Your task to perform on an android device: Open accessibility settings Image 0: 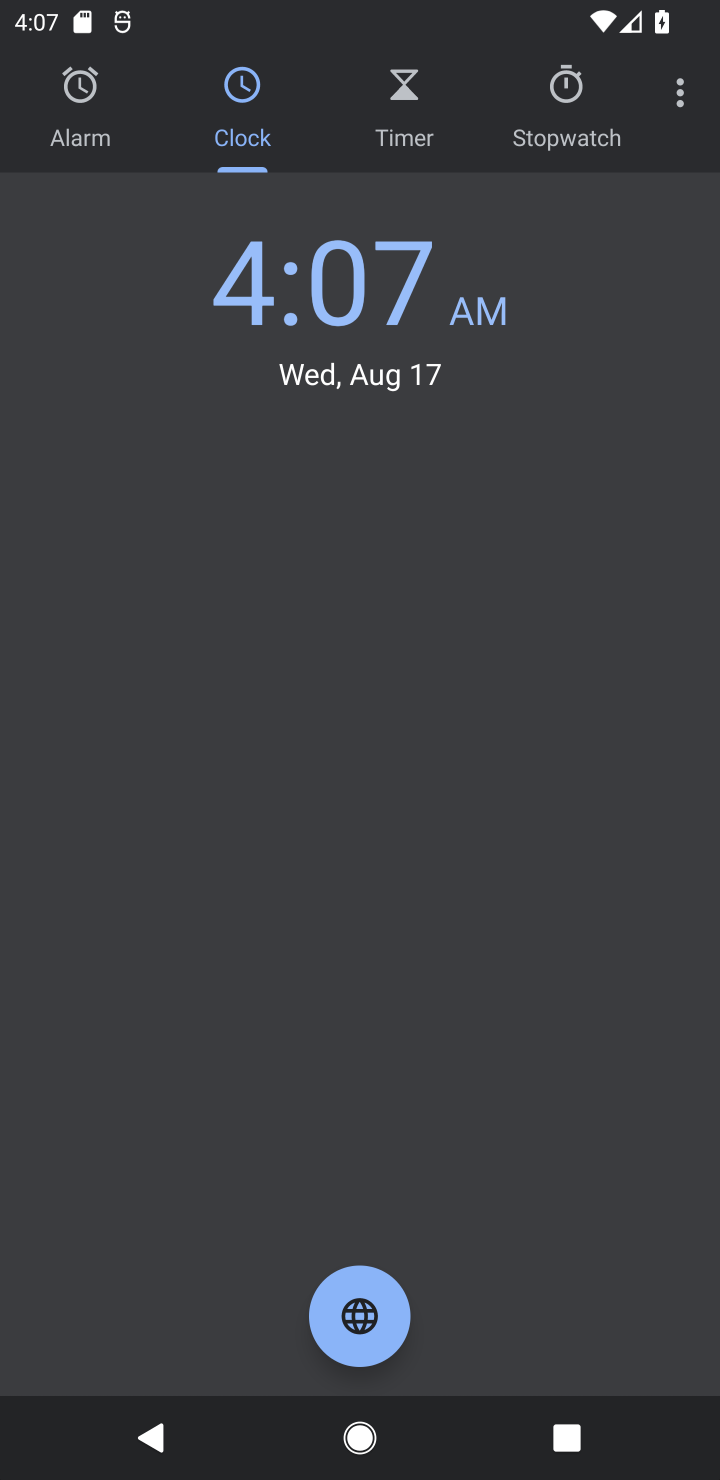
Step 0: press home button
Your task to perform on an android device: Open accessibility settings Image 1: 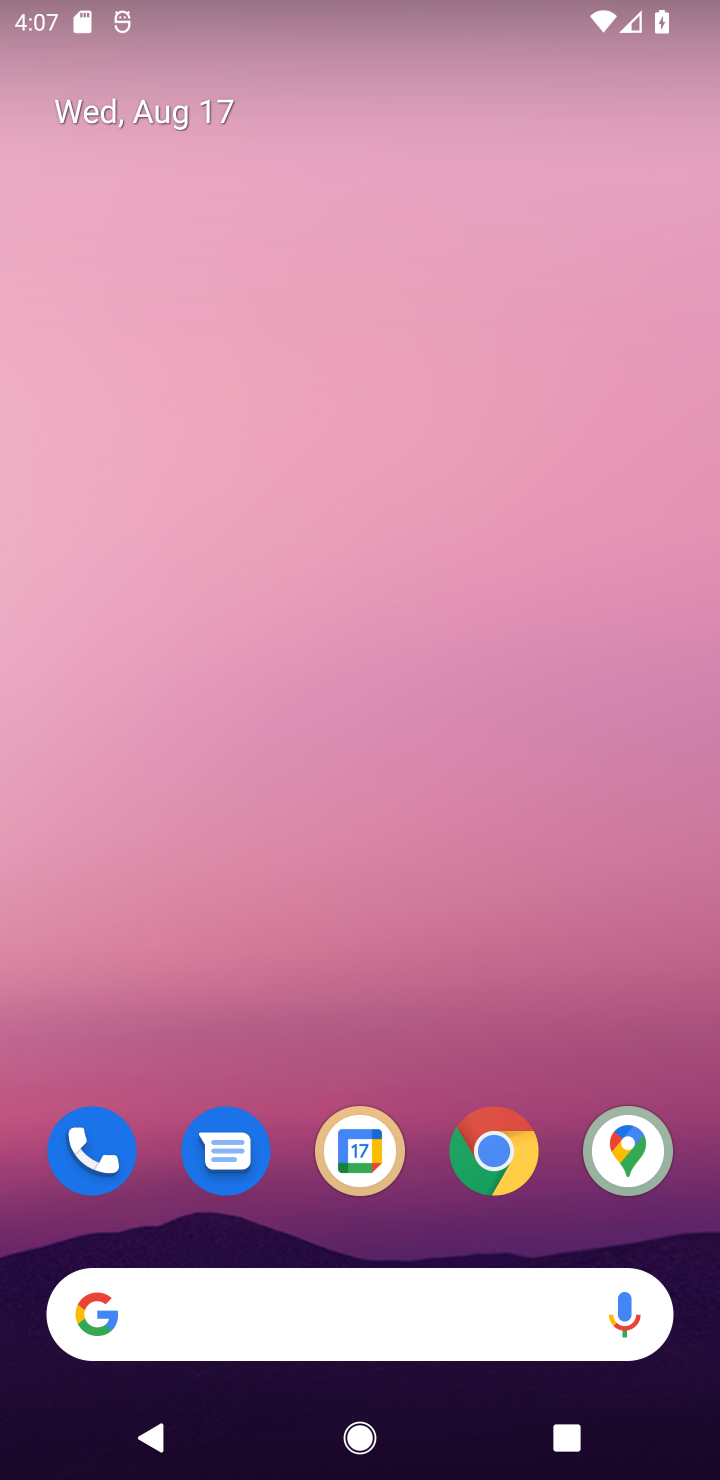
Step 1: drag from (438, 1225) to (452, 120)
Your task to perform on an android device: Open accessibility settings Image 2: 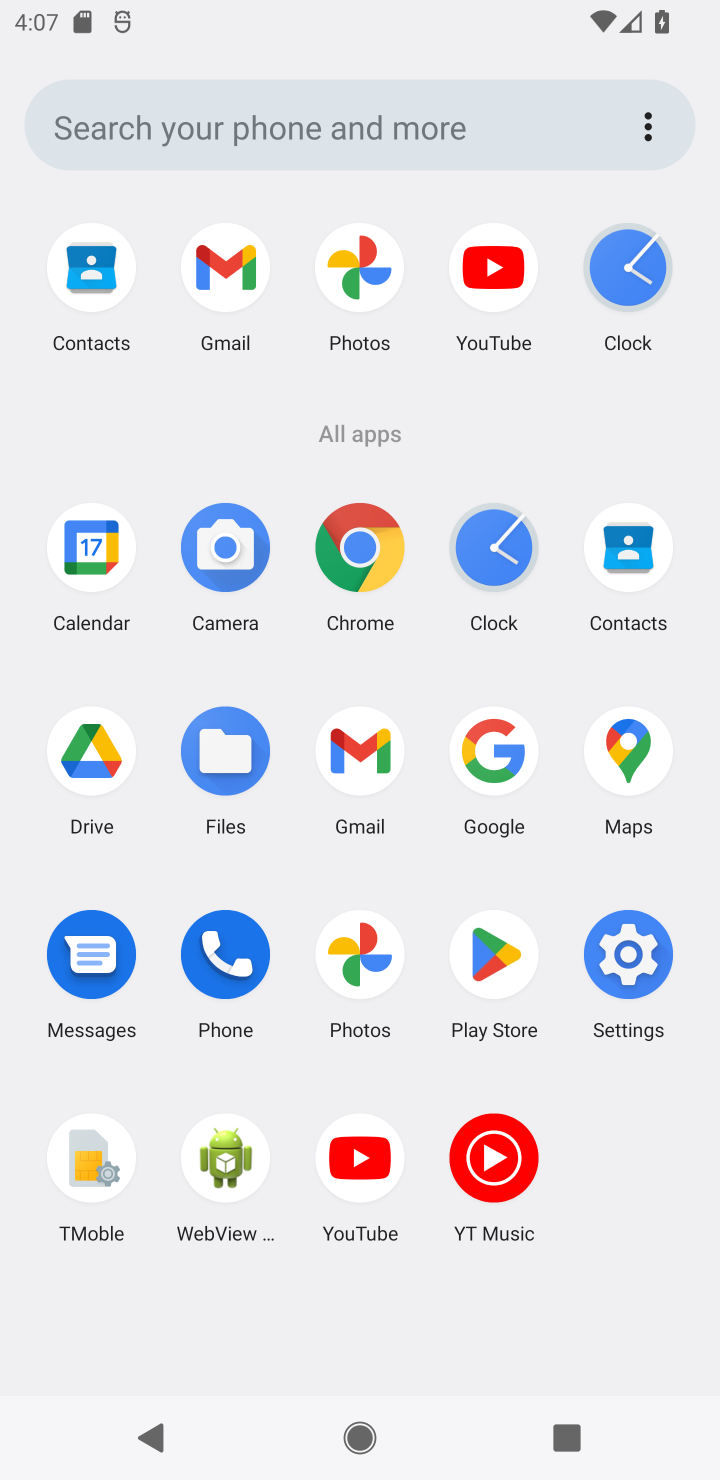
Step 2: click (632, 949)
Your task to perform on an android device: Open accessibility settings Image 3: 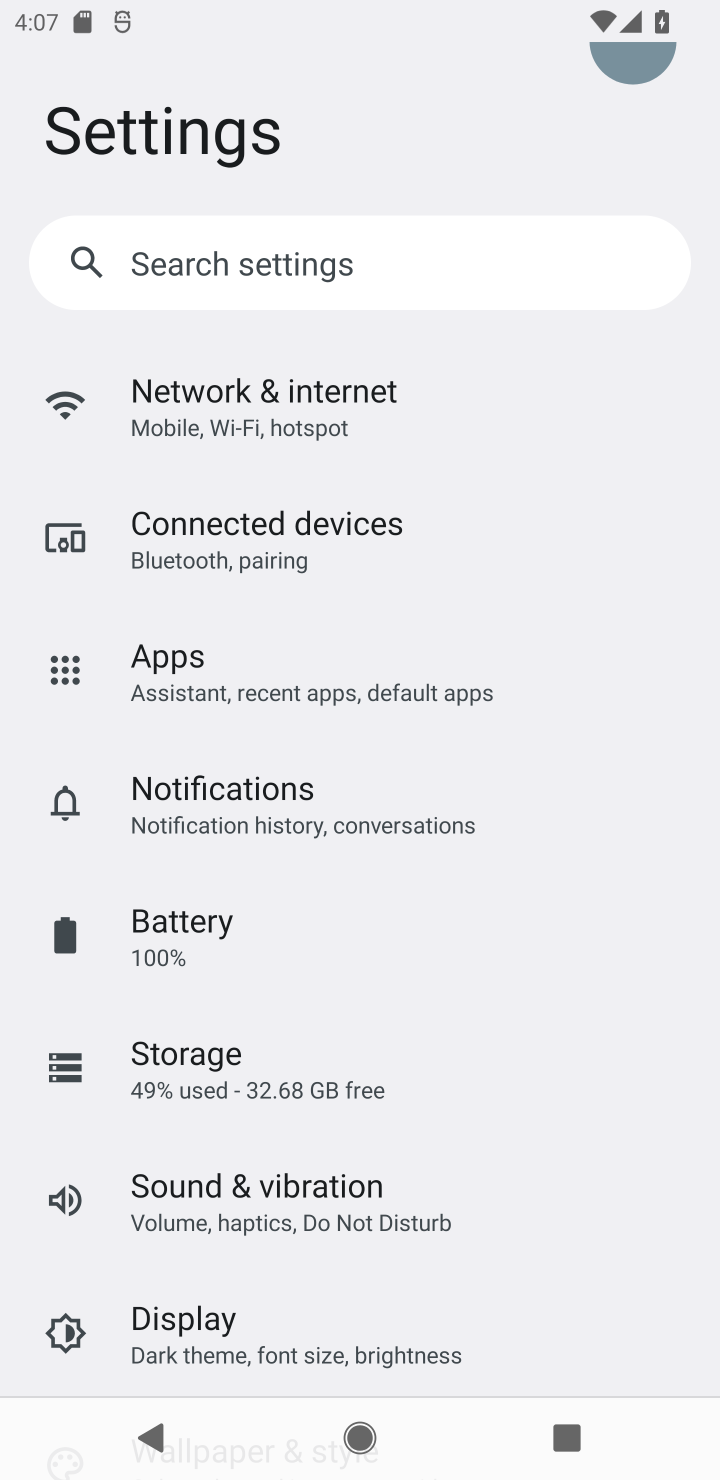
Step 3: drag from (388, 1261) to (413, 507)
Your task to perform on an android device: Open accessibility settings Image 4: 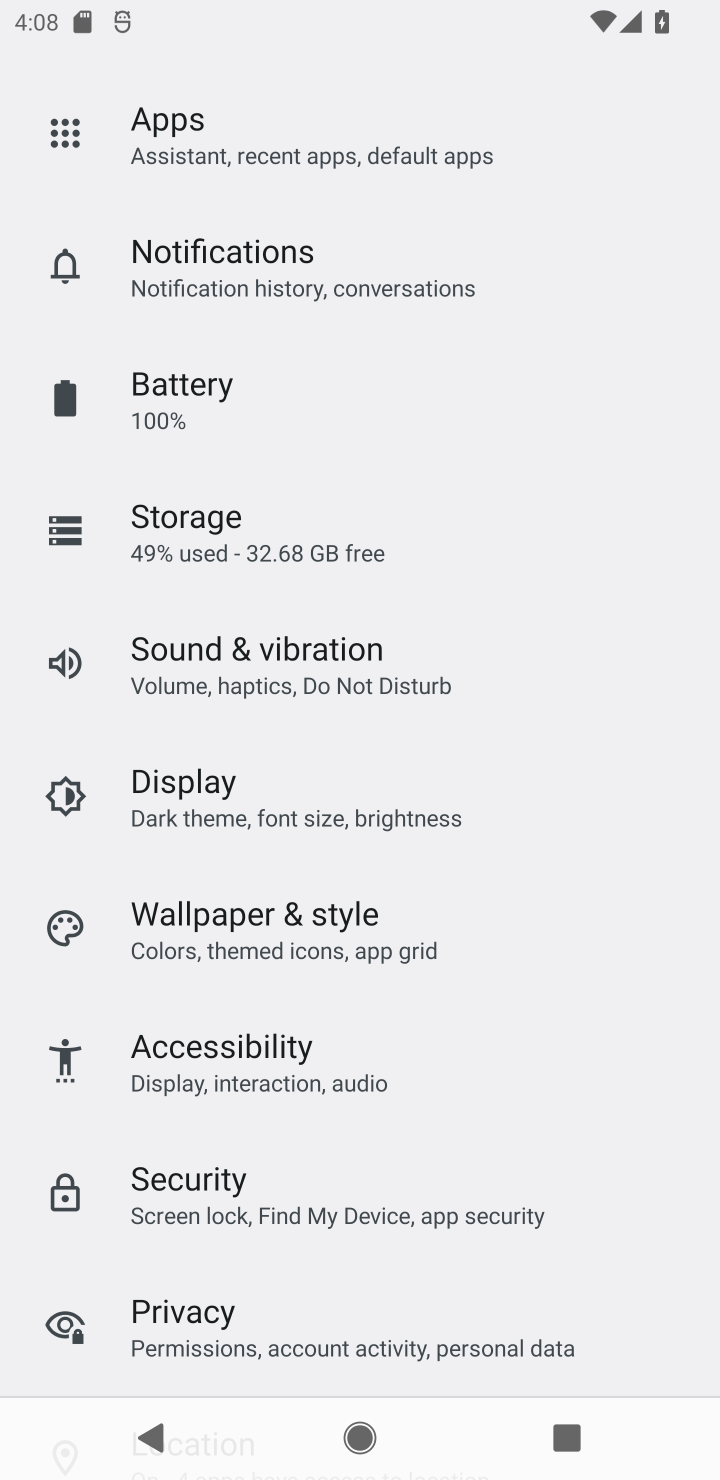
Step 4: click (312, 1126)
Your task to perform on an android device: Open accessibility settings Image 5: 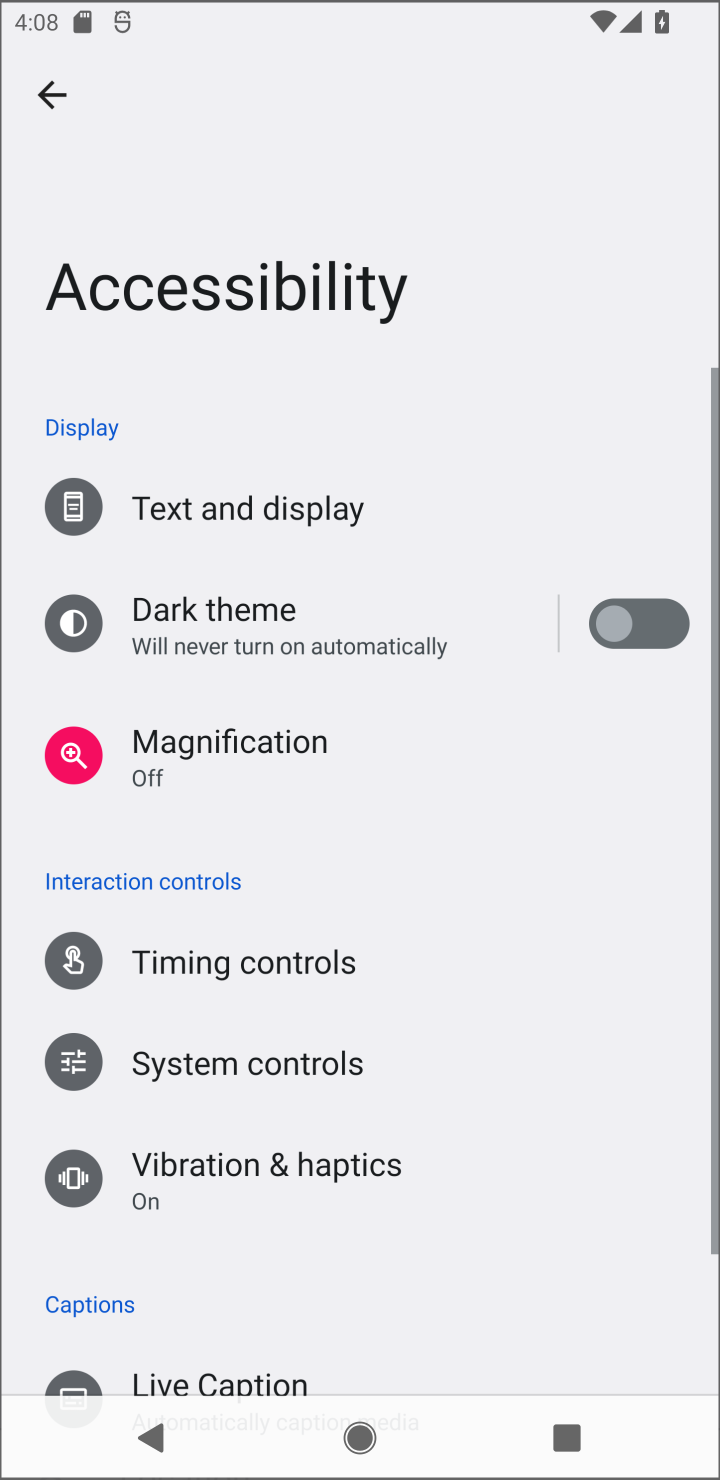
Step 5: task complete